Your task to perform on an android device: turn pop-ups off in chrome Image 0: 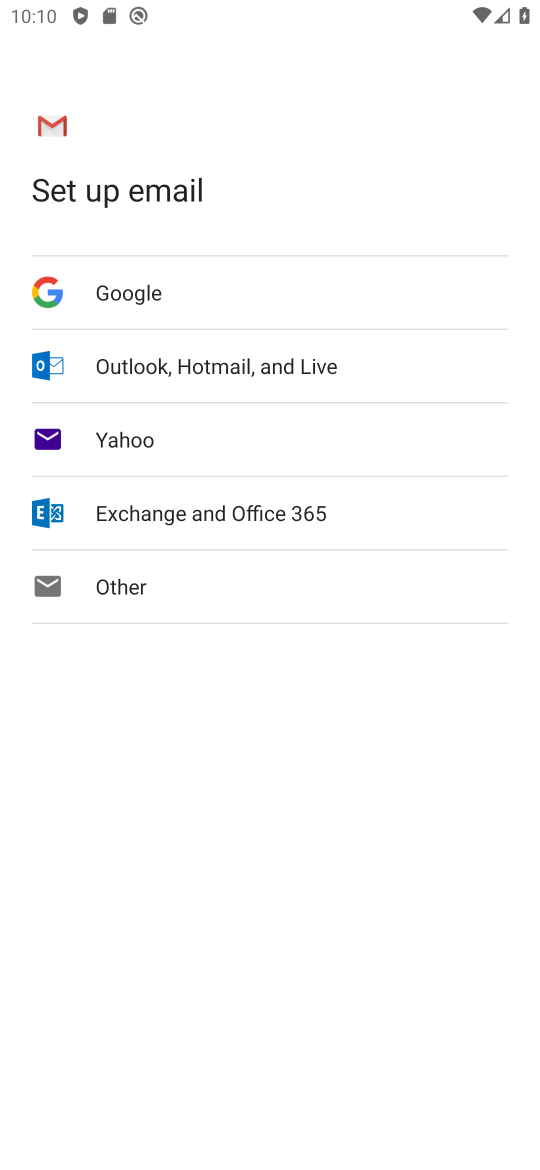
Step 0: press home button
Your task to perform on an android device: turn pop-ups off in chrome Image 1: 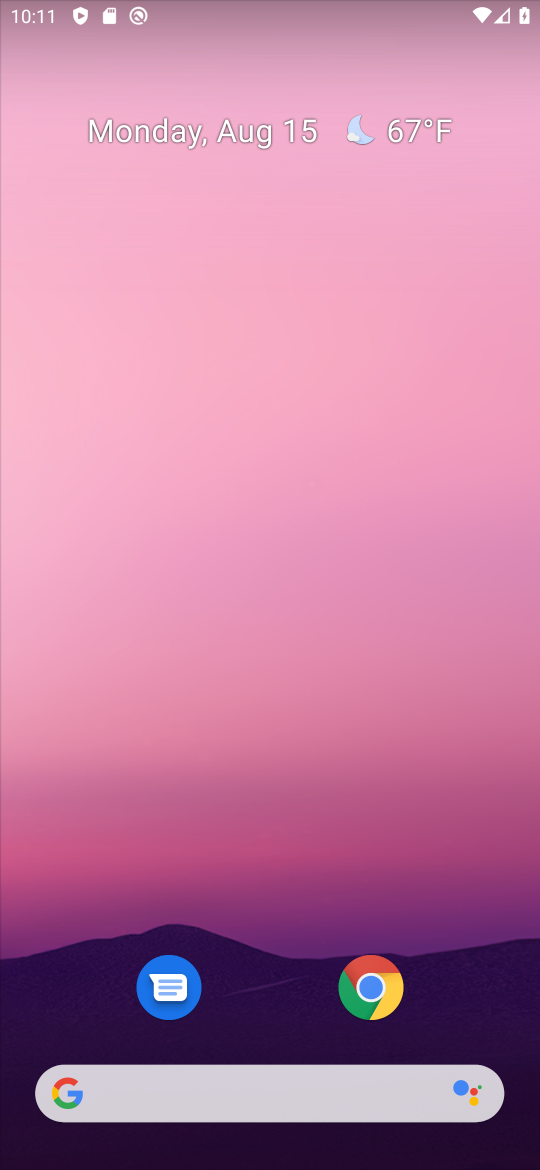
Step 1: click (374, 999)
Your task to perform on an android device: turn pop-ups off in chrome Image 2: 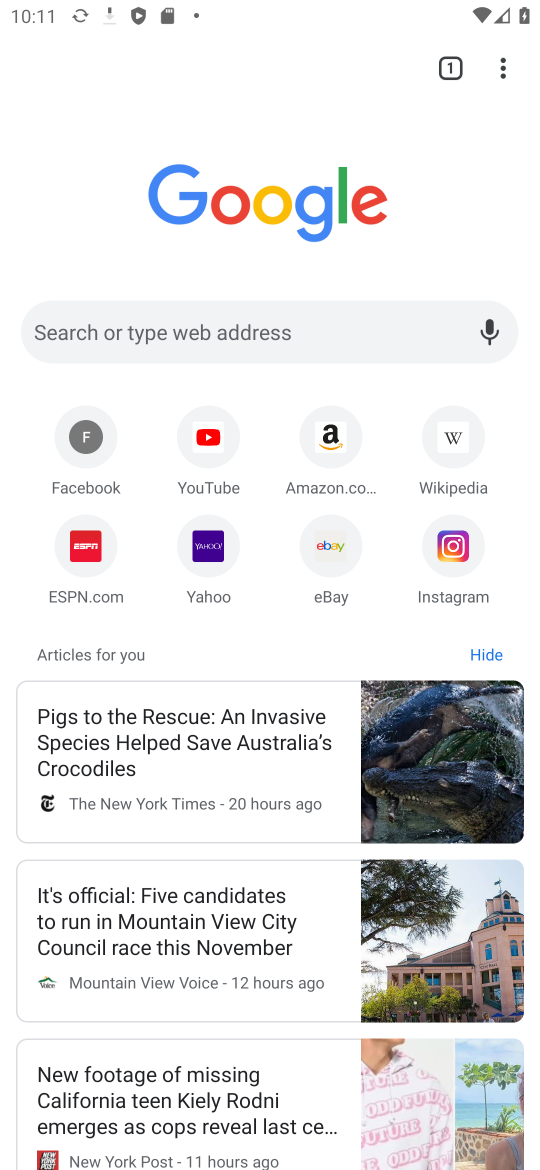
Step 2: click (493, 68)
Your task to perform on an android device: turn pop-ups off in chrome Image 3: 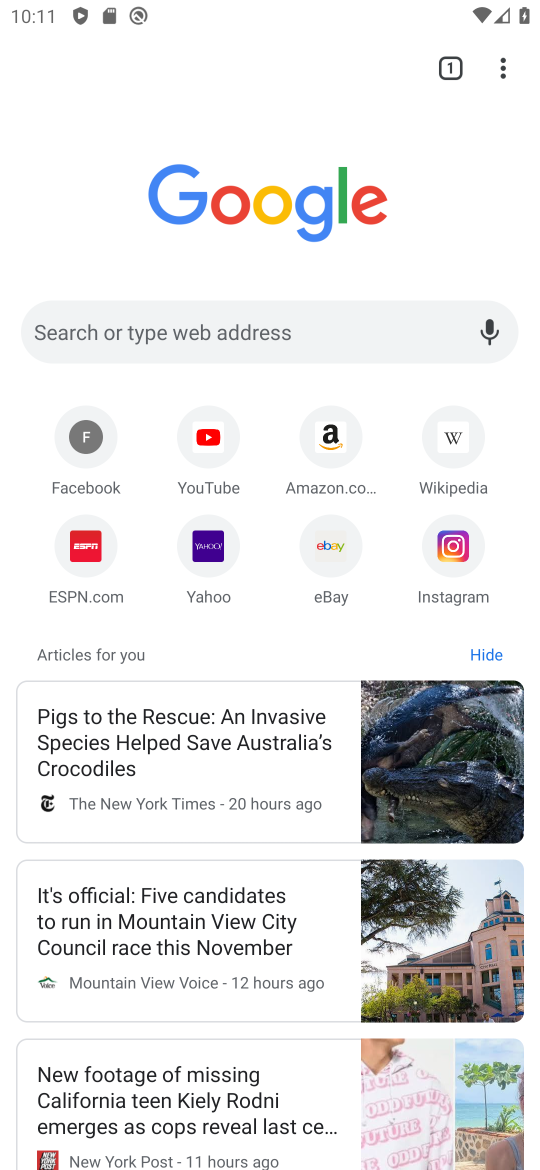
Step 3: drag from (505, 58) to (258, 654)
Your task to perform on an android device: turn pop-ups off in chrome Image 4: 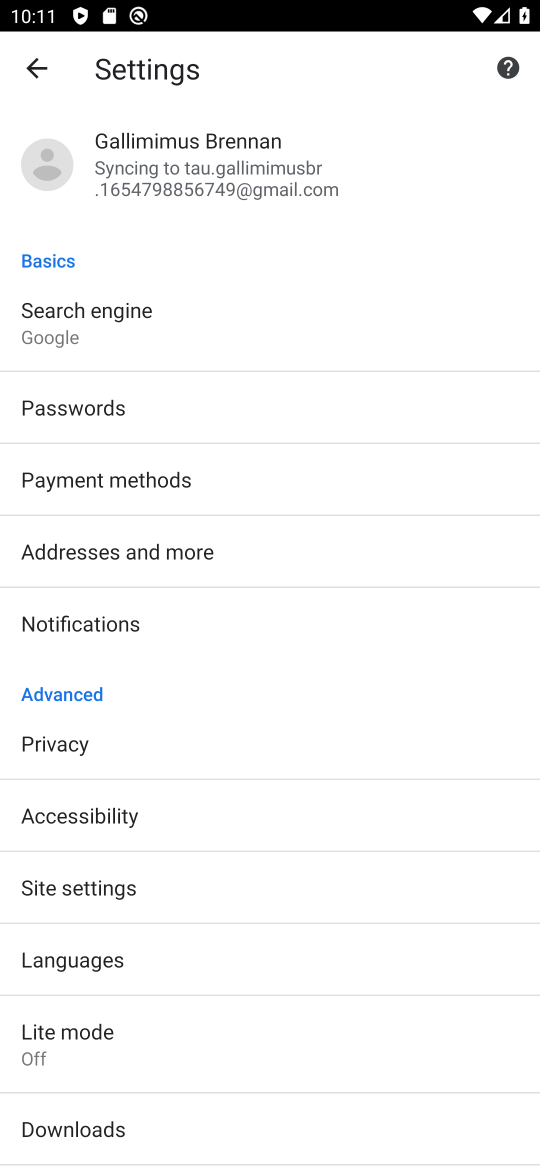
Step 4: click (60, 897)
Your task to perform on an android device: turn pop-ups off in chrome Image 5: 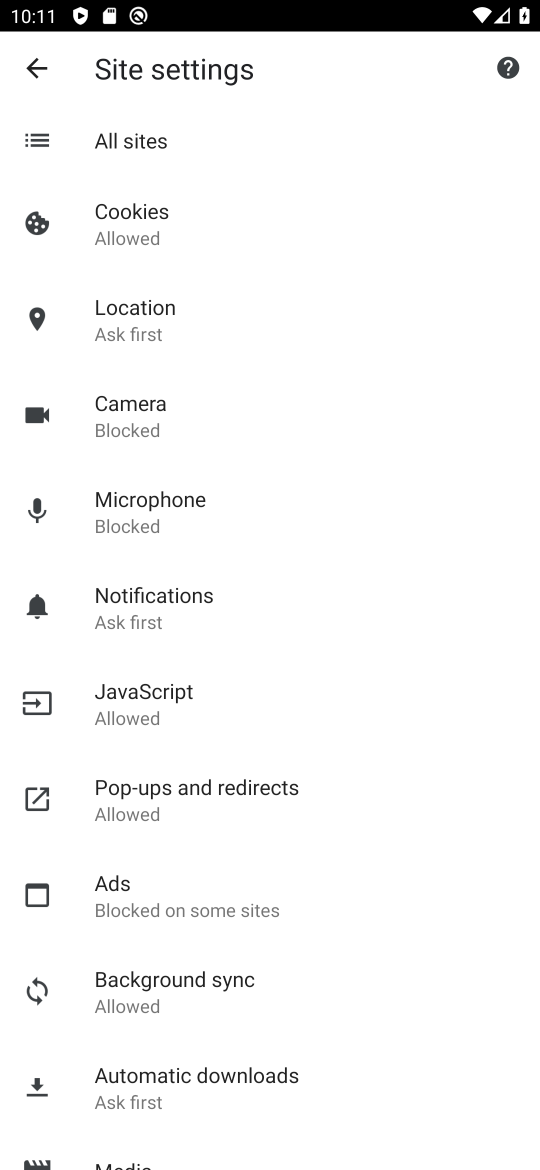
Step 5: click (124, 780)
Your task to perform on an android device: turn pop-ups off in chrome Image 6: 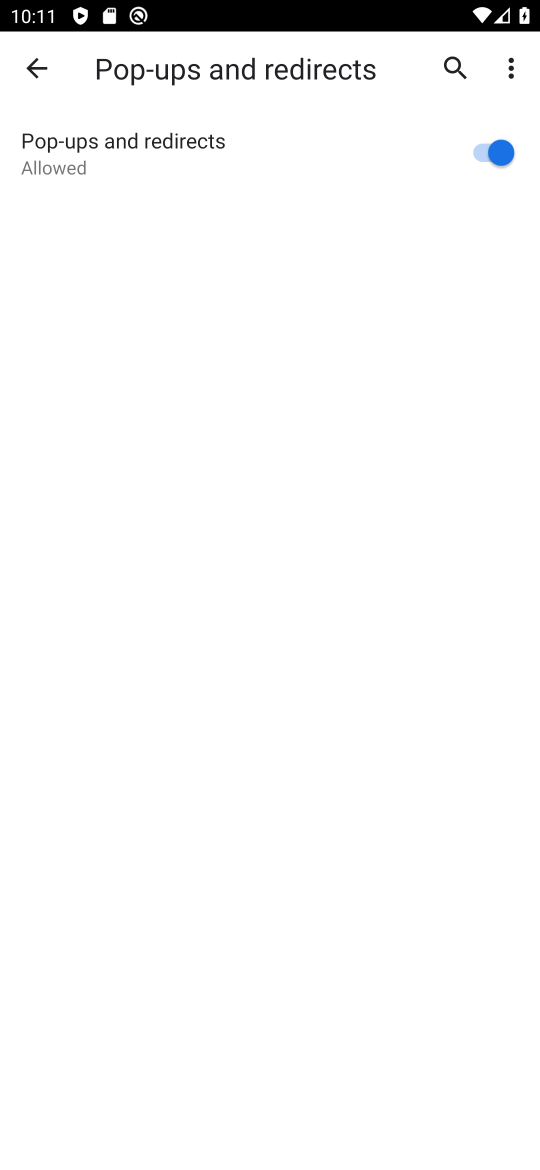
Step 6: click (495, 149)
Your task to perform on an android device: turn pop-ups off in chrome Image 7: 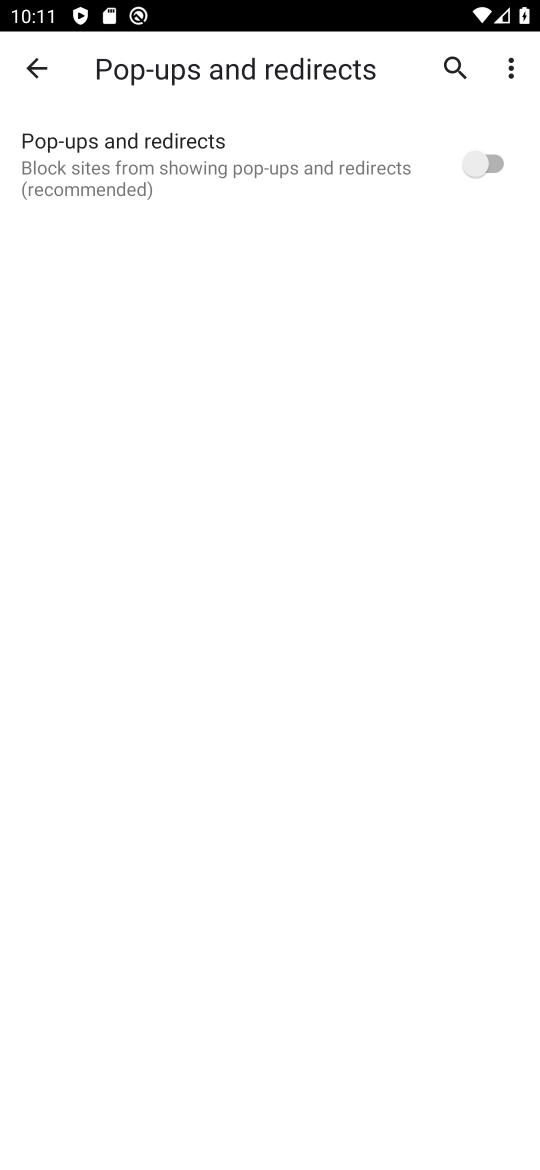
Step 7: task complete